Your task to perform on an android device: turn pop-ups on in chrome Image 0: 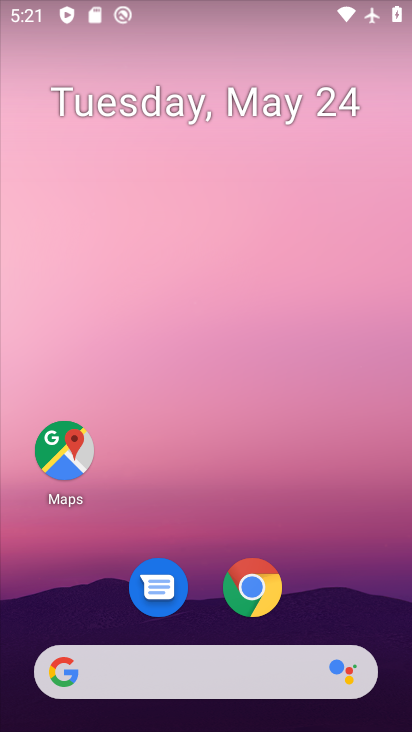
Step 0: click (247, 594)
Your task to perform on an android device: turn pop-ups on in chrome Image 1: 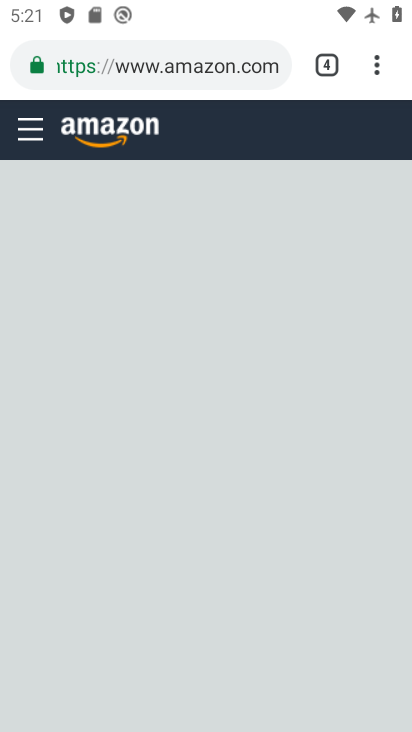
Step 1: click (378, 72)
Your task to perform on an android device: turn pop-ups on in chrome Image 2: 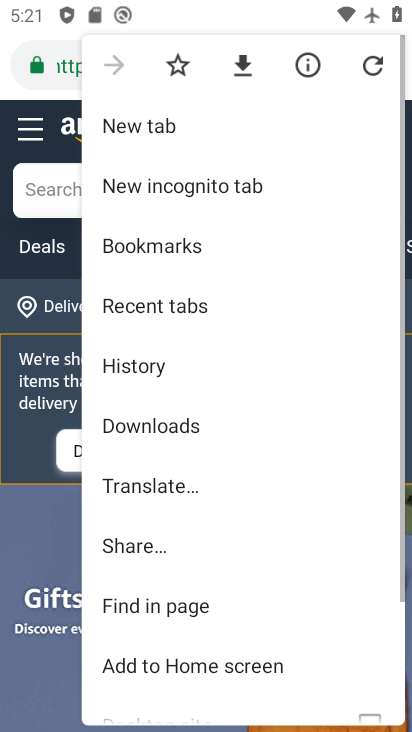
Step 2: drag from (241, 622) to (209, 61)
Your task to perform on an android device: turn pop-ups on in chrome Image 3: 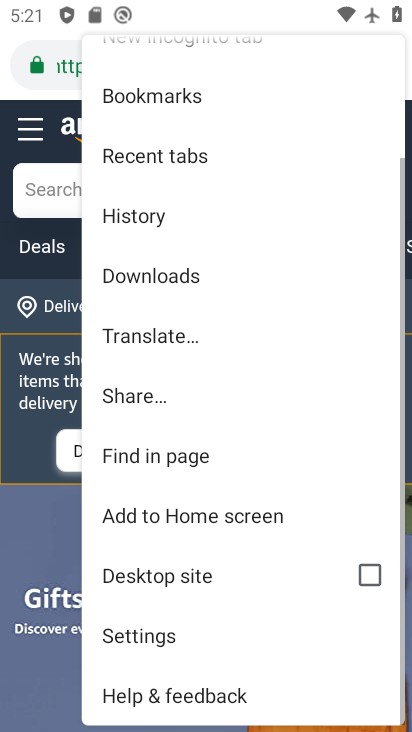
Step 3: click (209, 630)
Your task to perform on an android device: turn pop-ups on in chrome Image 4: 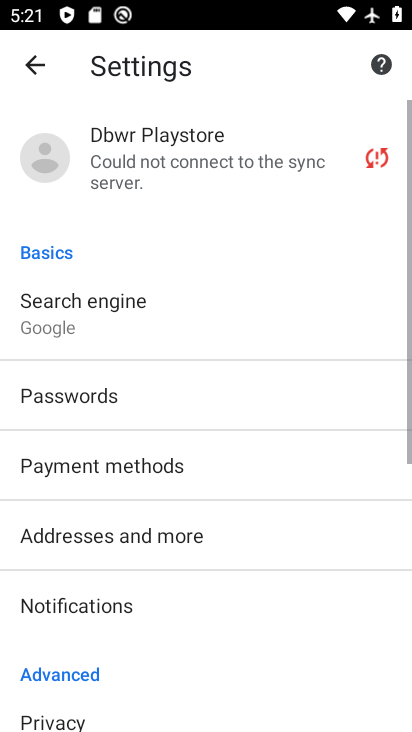
Step 4: drag from (223, 569) to (196, 133)
Your task to perform on an android device: turn pop-ups on in chrome Image 5: 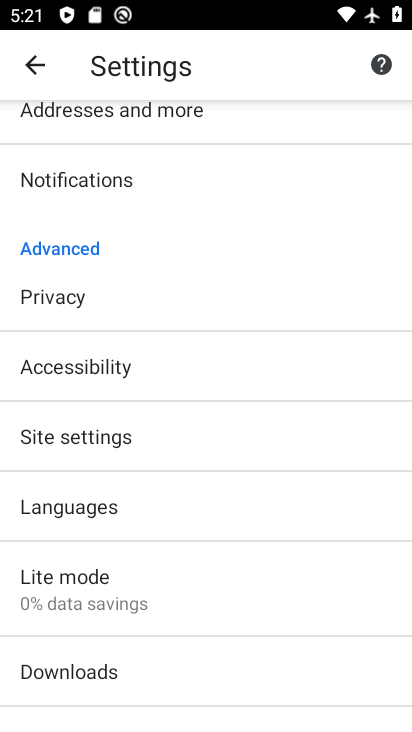
Step 5: click (146, 448)
Your task to perform on an android device: turn pop-ups on in chrome Image 6: 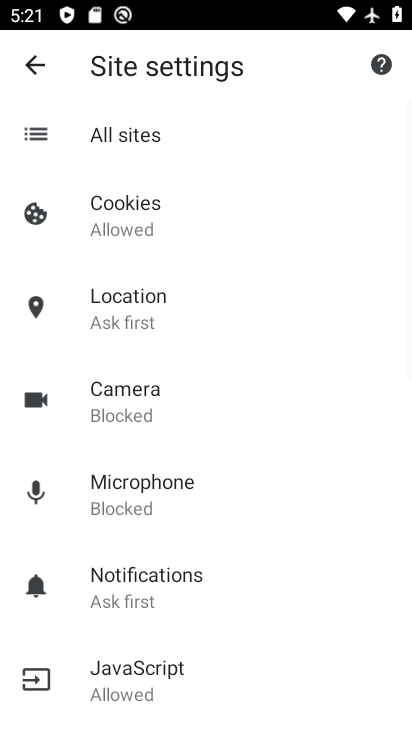
Step 6: drag from (272, 647) to (278, 242)
Your task to perform on an android device: turn pop-ups on in chrome Image 7: 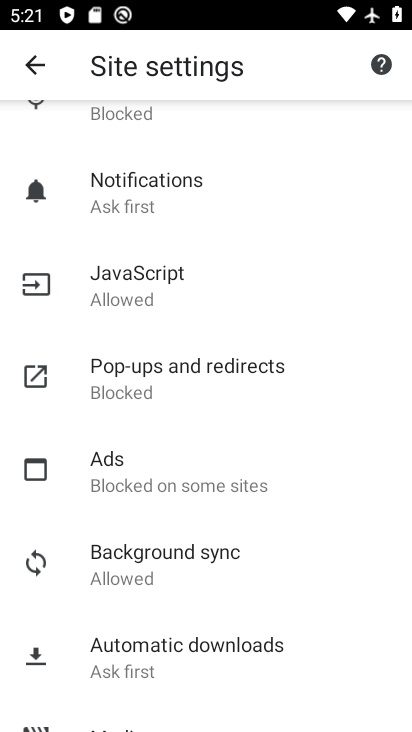
Step 7: click (243, 385)
Your task to perform on an android device: turn pop-ups on in chrome Image 8: 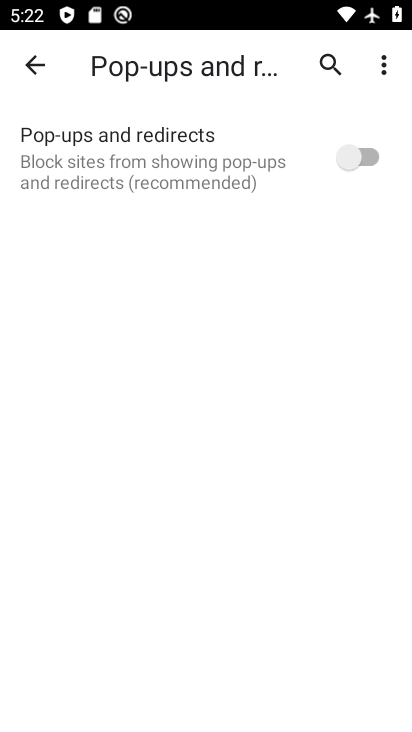
Step 8: click (358, 148)
Your task to perform on an android device: turn pop-ups on in chrome Image 9: 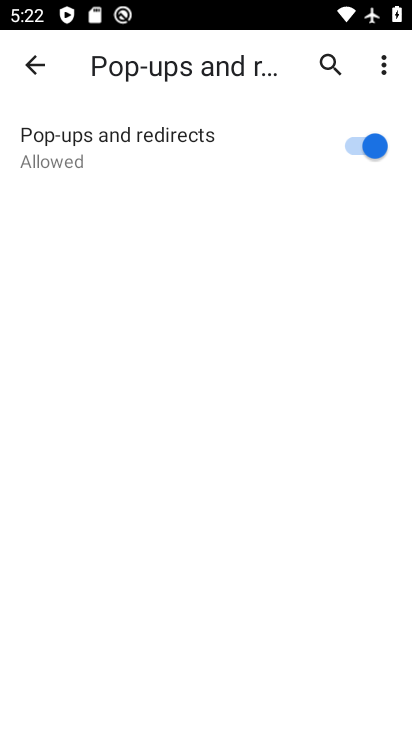
Step 9: task complete